Your task to perform on an android device: Show me recent news Image 0: 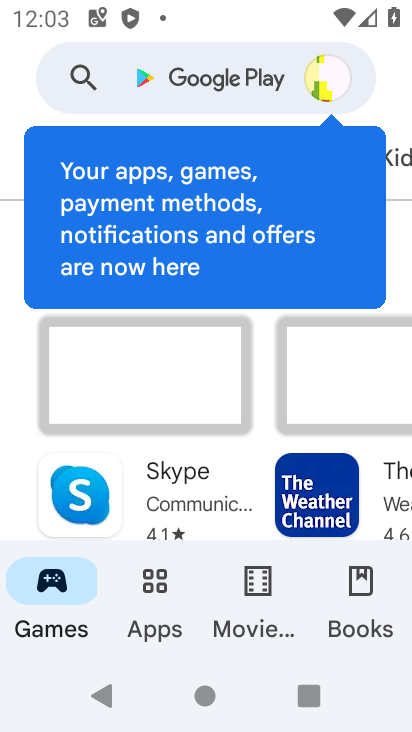
Step 0: press home button
Your task to perform on an android device: Show me recent news Image 1: 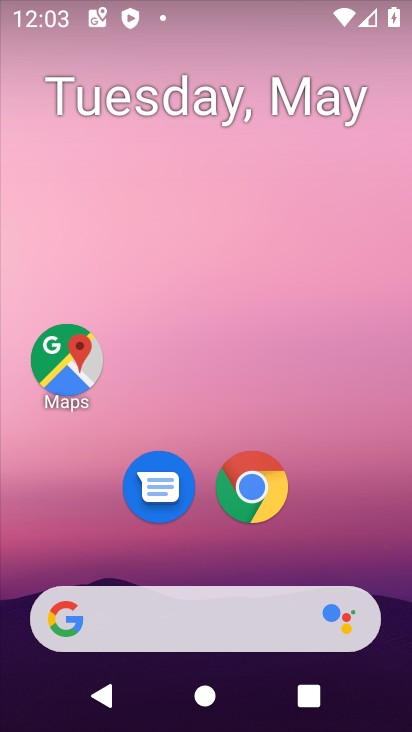
Step 1: task complete